Your task to perform on an android device: Do I have any events today? Image 0: 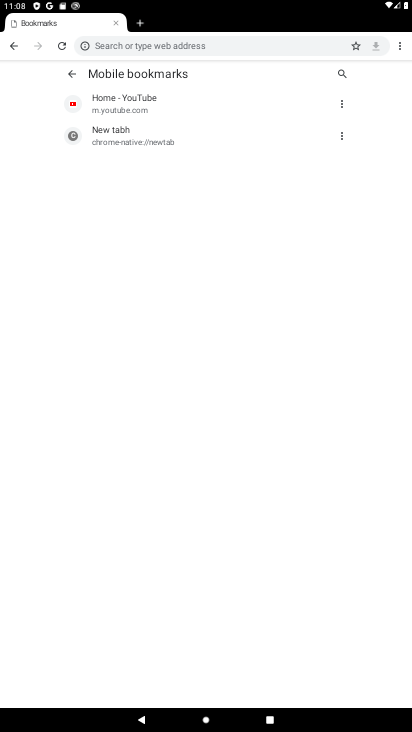
Step 0: press home button
Your task to perform on an android device: Do I have any events today? Image 1: 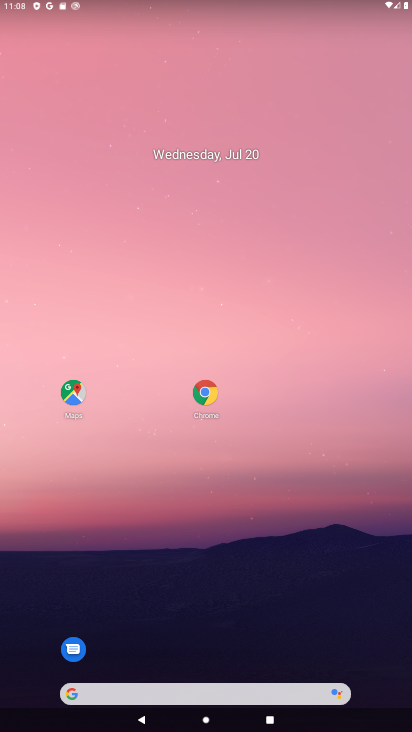
Step 1: click (203, 394)
Your task to perform on an android device: Do I have any events today? Image 2: 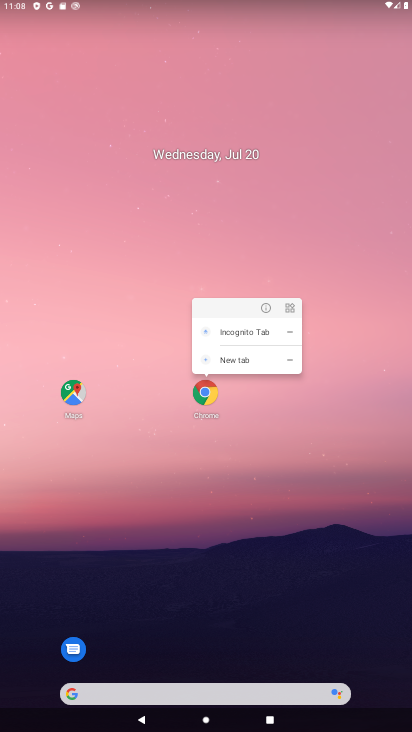
Step 2: click (205, 409)
Your task to perform on an android device: Do I have any events today? Image 3: 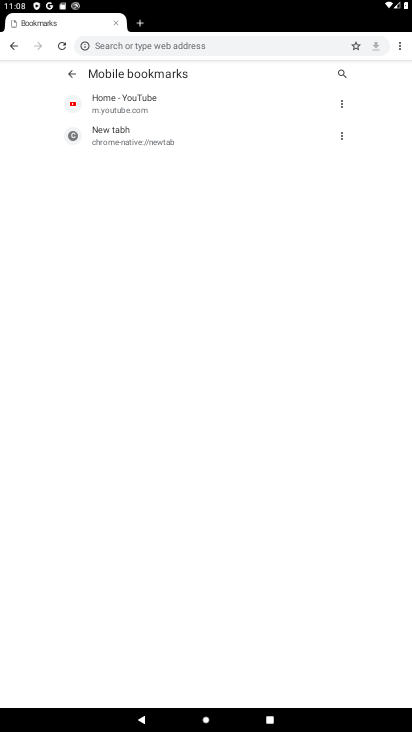
Step 3: click (143, 27)
Your task to perform on an android device: Do I have any events today? Image 4: 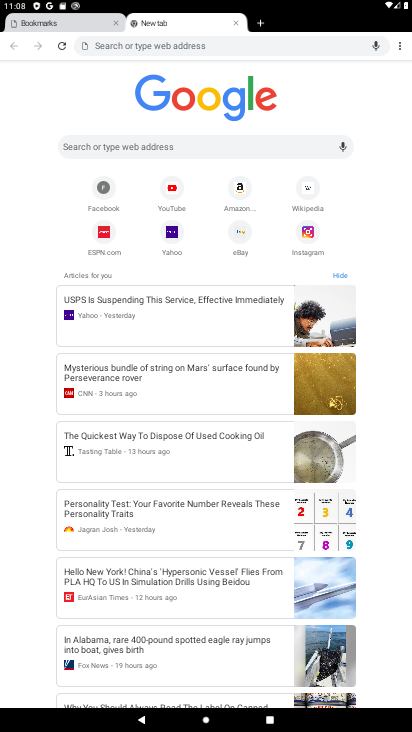
Step 4: click (162, 139)
Your task to perform on an android device: Do I have any events today? Image 5: 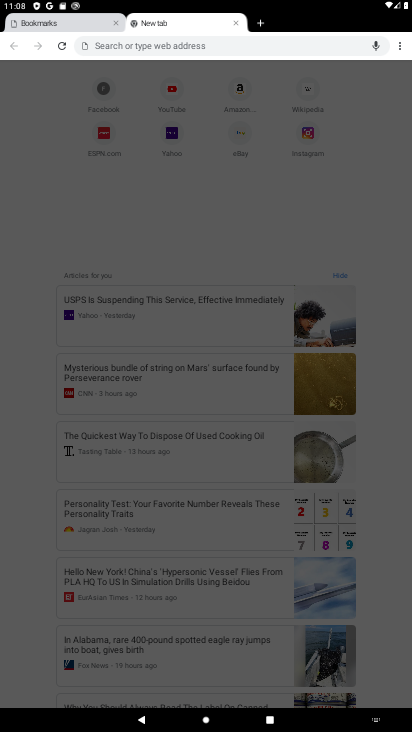
Step 5: type "Do I have any events today "
Your task to perform on an android device: Do I have any events today? Image 6: 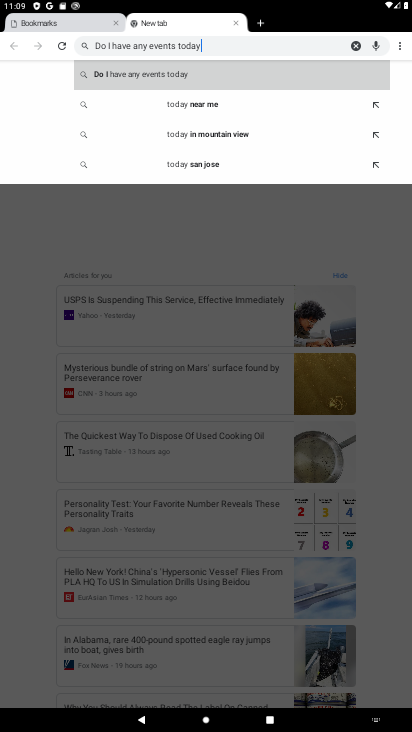
Step 6: click (205, 65)
Your task to perform on an android device: Do I have any events today? Image 7: 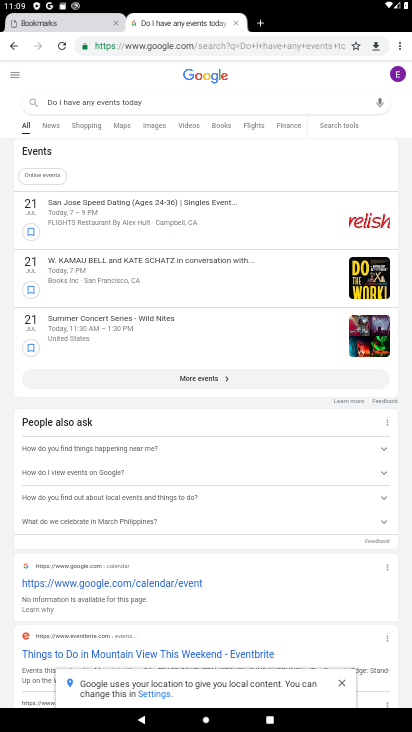
Step 7: task complete